Your task to perform on an android device: turn on the 12-hour format for clock Image 0: 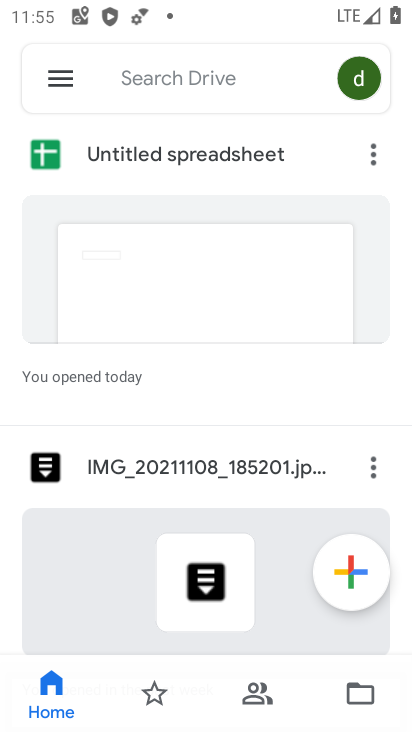
Step 0: press back button
Your task to perform on an android device: turn on the 12-hour format for clock Image 1: 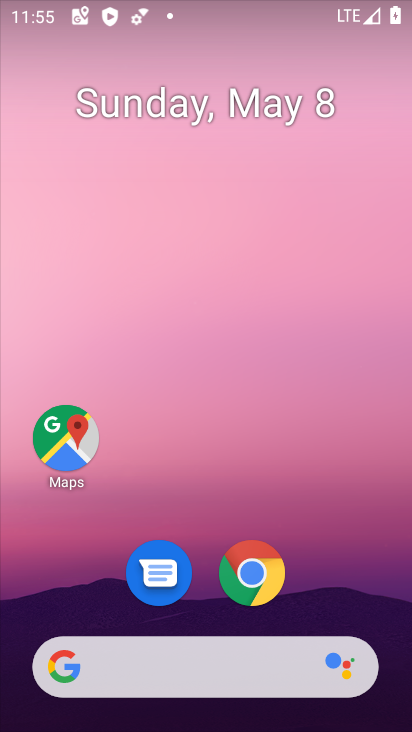
Step 1: drag from (339, 577) to (312, 15)
Your task to perform on an android device: turn on the 12-hour format for clock Image 2: 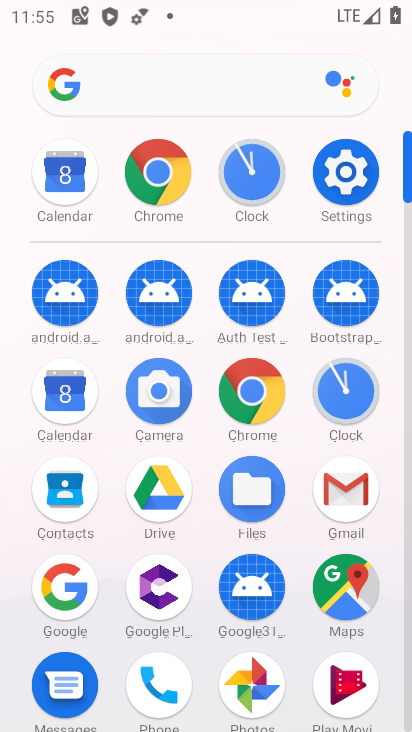
Step 2: click (350, 380)
Your task to perform on an android device: turn on the 12-hour format for clock Image 3: 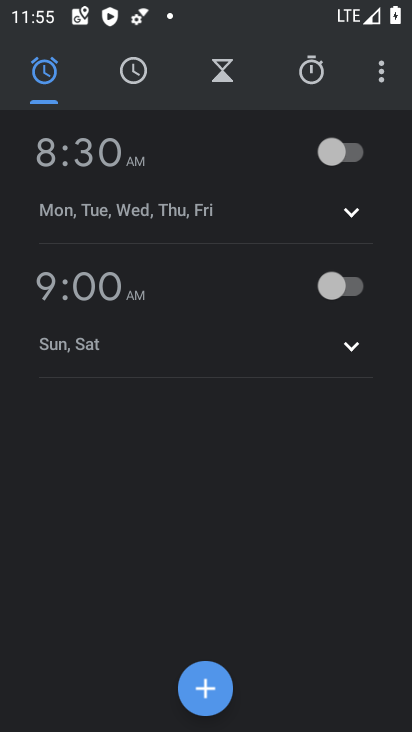
Step 3: drag from (378, 61) to (321, 141)
Your task to perform on an android device: turn on the 12-hour format for clock Image 4: 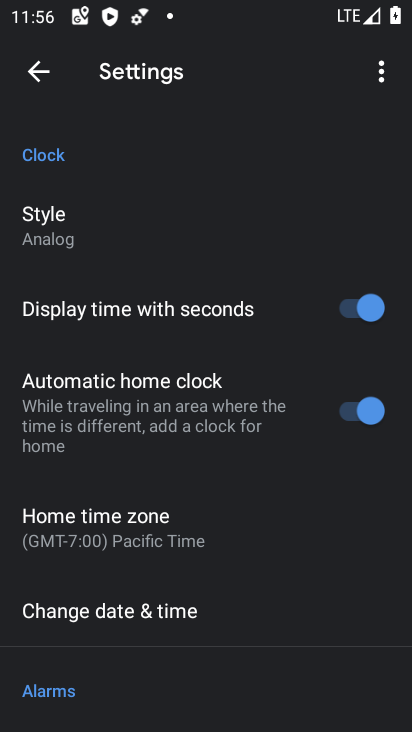
Step 4: drag from (200, 473) to (212, 65)
Your task to perform on an android device: turn on the 12-hour format for clock Image 5: 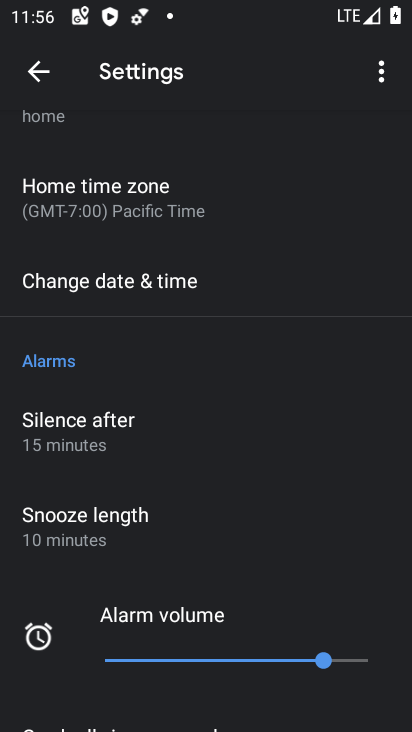
Step 5: drag from (194, 490) to (244, 82)
Your task to perform on an android device: turn on the 12-hour format for clock Image 6: 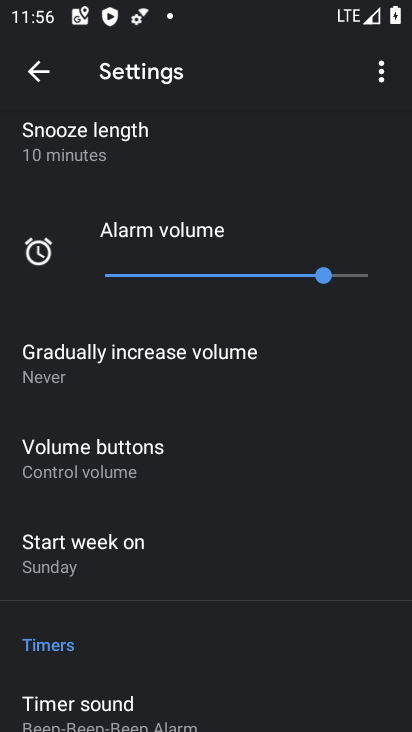
Step 6: drag from (270, 594) to (278, 136)
Your task to perform on an android device: turn on the 12-hour format for clock Image 7: 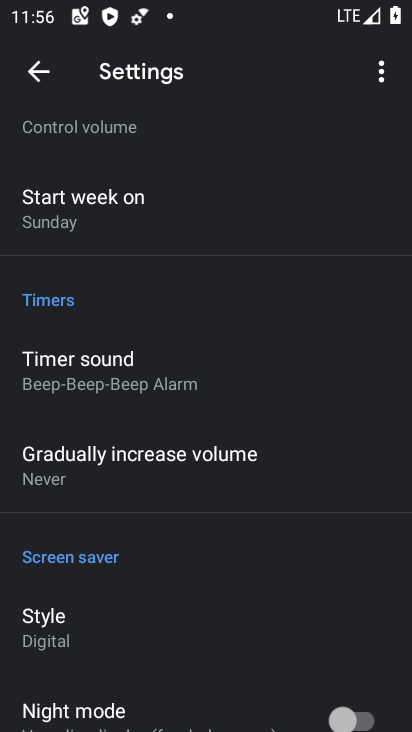
Step 7: drag from (239, 629) to (281, 186)
Your task to perform on an android device: turn on the 12-hour format for clock Image 8: 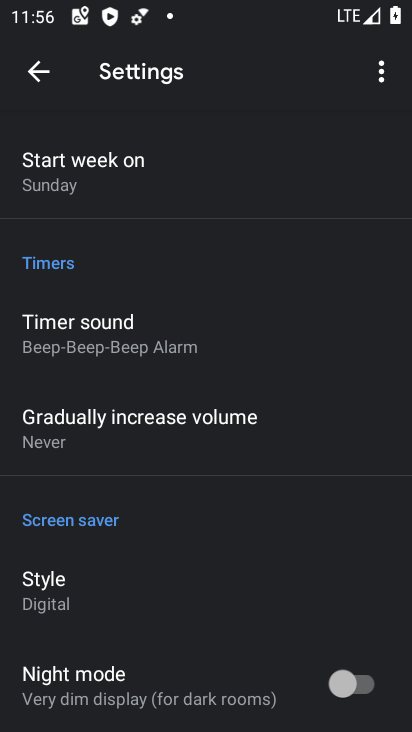
Step 8: drag from (209, 251) to (247, 562)
Your task to perform on an android device: turn on the 12-hour format for clock Image 9: 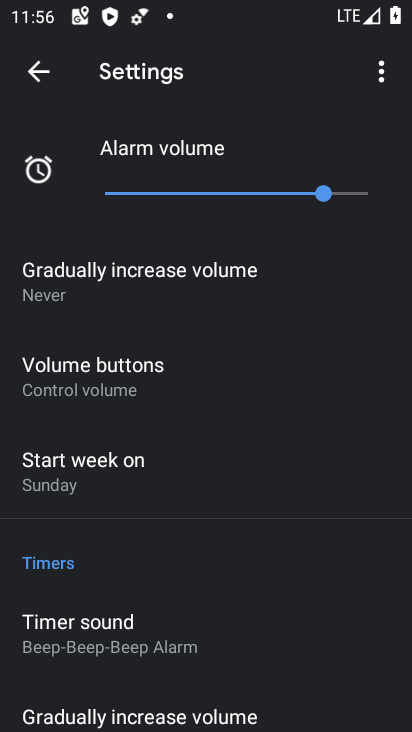
Step 9: drag from (181, 280) to (235, 660)
Your task to perform on an android device: turn on the 12-hour format for clock Image 10: 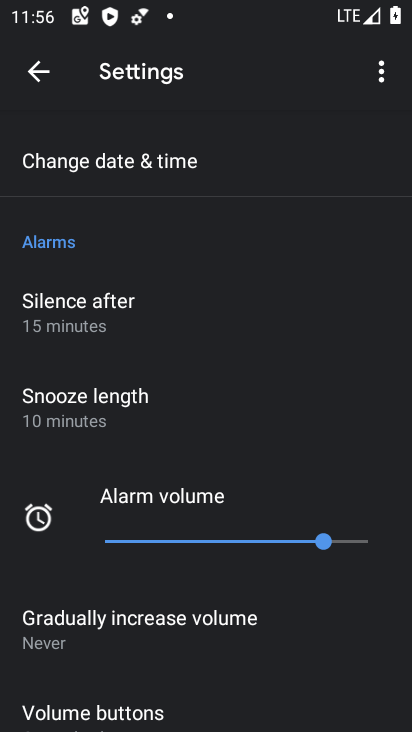
Step 10: click (151, 169)
Your task to perform on an android device: turn on the 12-hour format for clock Image 11: 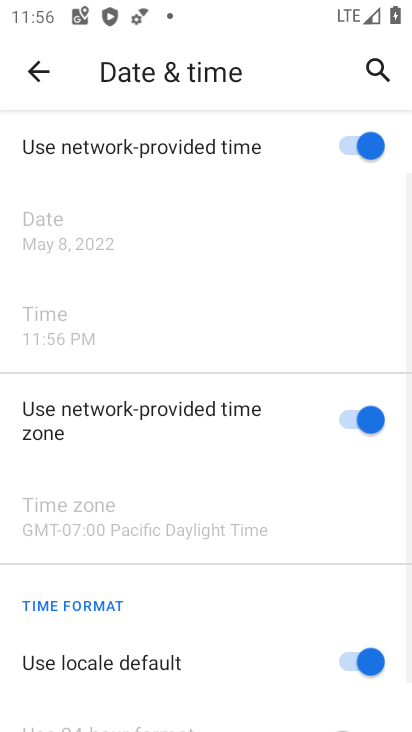
Step 11: task complete